Your task to perform on an android device: manage bookmarks in the chrome app Image 0: 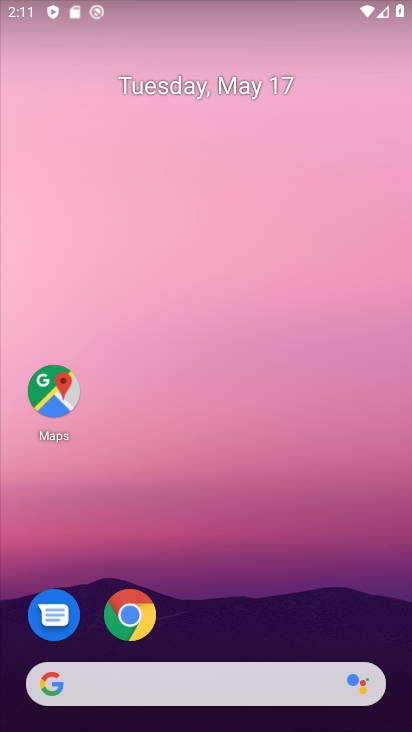
Step 0: click (133, 619)
Your task to perform on an android device: manage bookmarks in the chrome app Image 1: 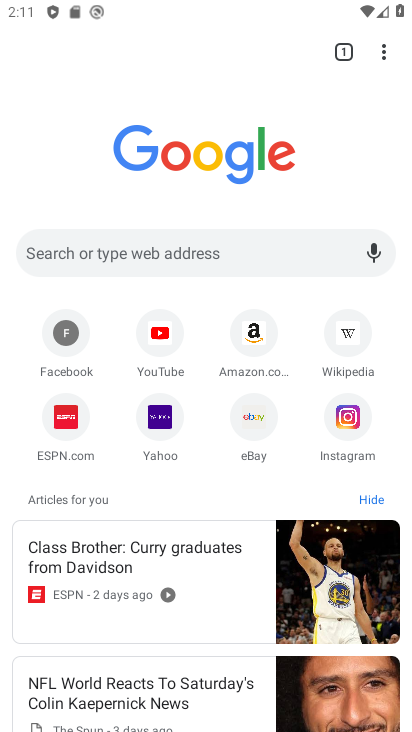
Step 1: click (382, 57)
Your task to perform on an android device: manage bookmarks in the chrome app Image 2: 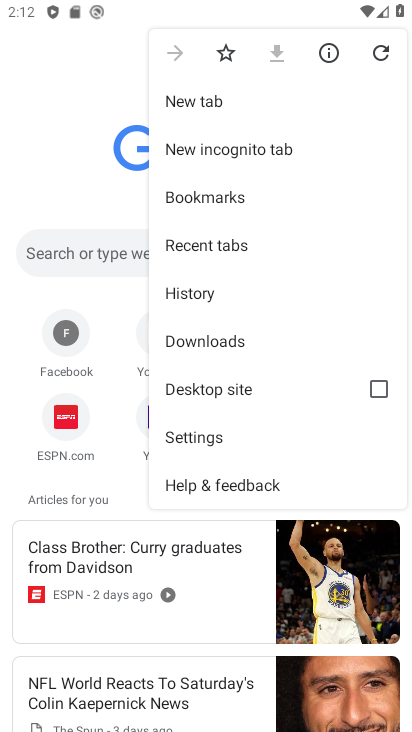
Step 2: click (216, 190)
Your task to perform on an android device: manage bookmarks in the chrome app Image 3: 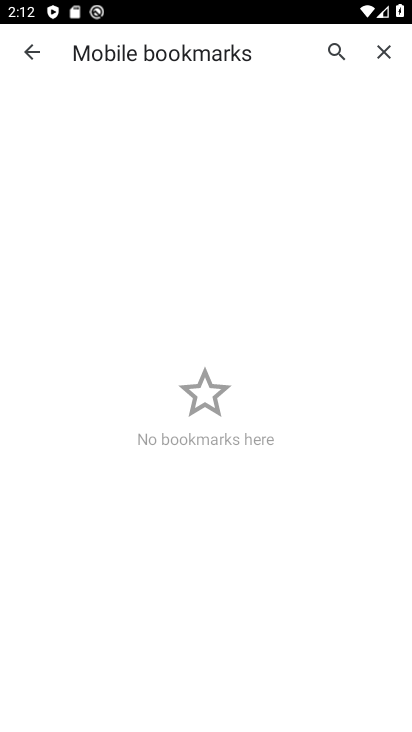
Step 3: task complete